Your task to perform on an android device: Open the map Image 0: 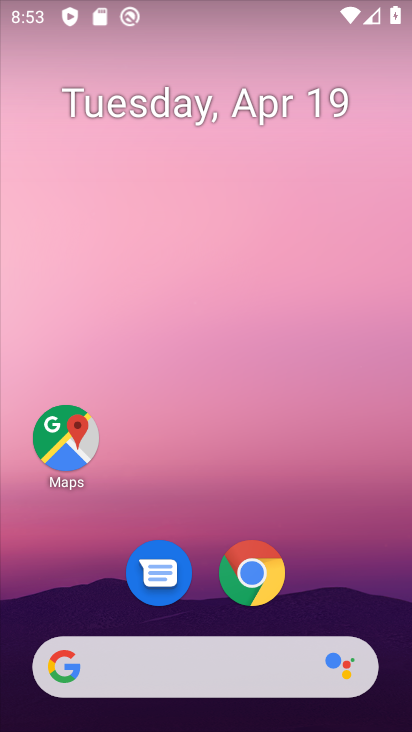
Step 0: click (55, 438)
Your task to perform on an android device: Open the map Image 1: 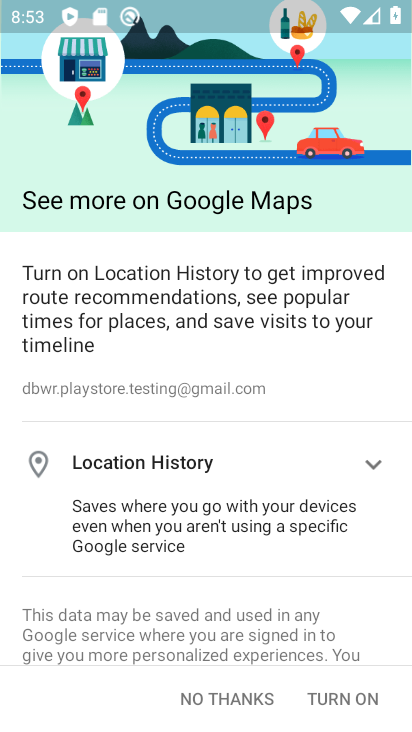
Step 1: click (244, 693)
Your task to perform on an android device: Open the map Image 2: 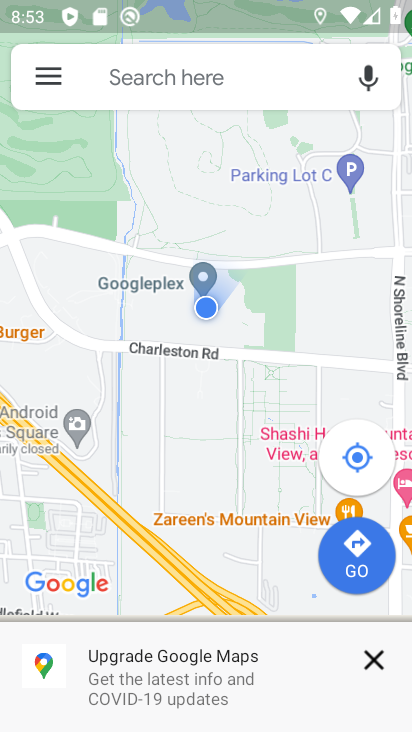
Step 2: click (373, 659)
Your task to perform on an android device: Open the map Image 3: 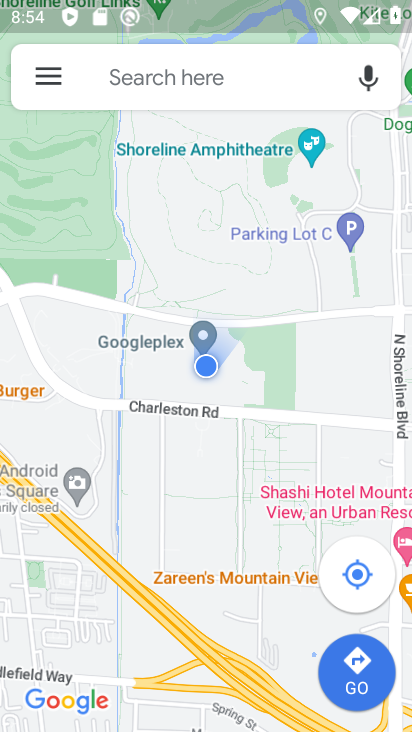
Step 3: task complete